Your task to perform on an android device: turn off priority inbox in the gmail app Image 0: 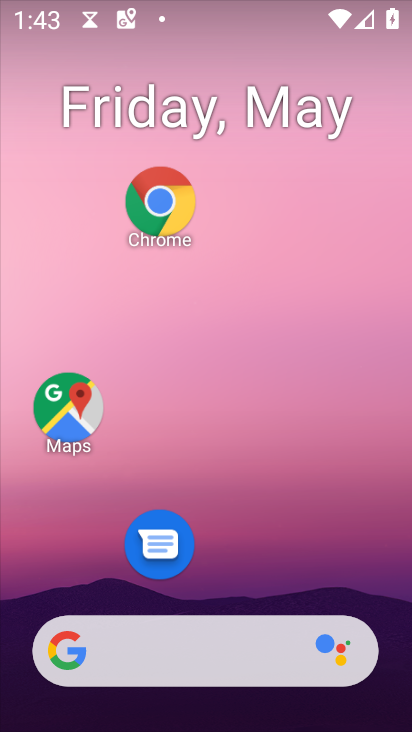
Step 0: drag from (311, 577) to (241, 172)
Your task to perform on an android device: turn off priority inbox in the gmail app Image 1: 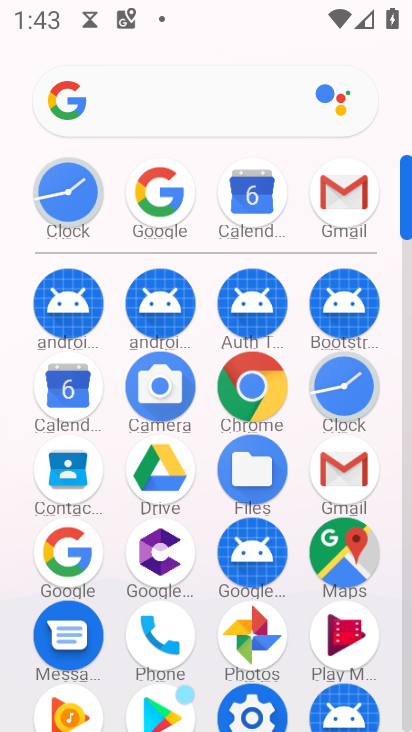
Step 1: click (336, 474)
Your task to perform on an android device: turn off priority inbox in the gmail app Image 2: 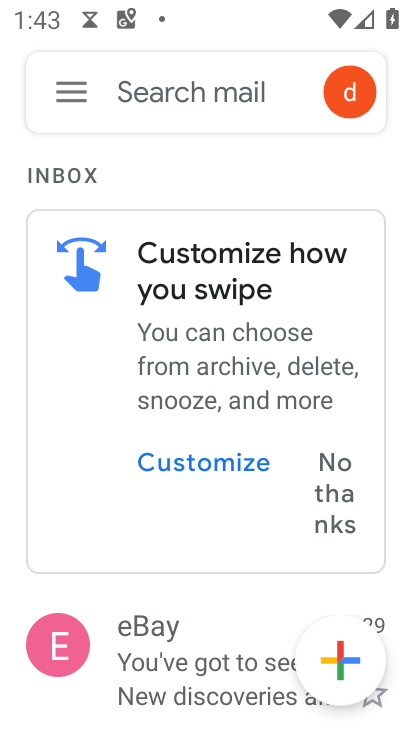
Step 2: click (86, 100)
Your task to perform on an android device: turn off priority inbox in the gmail app Image 3: 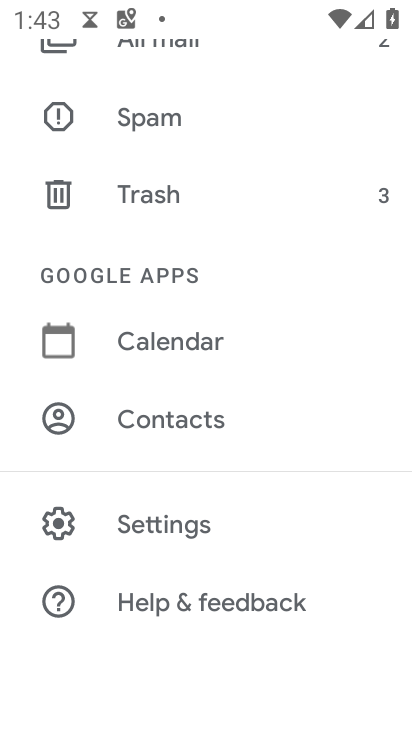
Step 3: click (193, 520)
Your task to perform on an android device: turn off priority inbox in the gmail app Image 4: 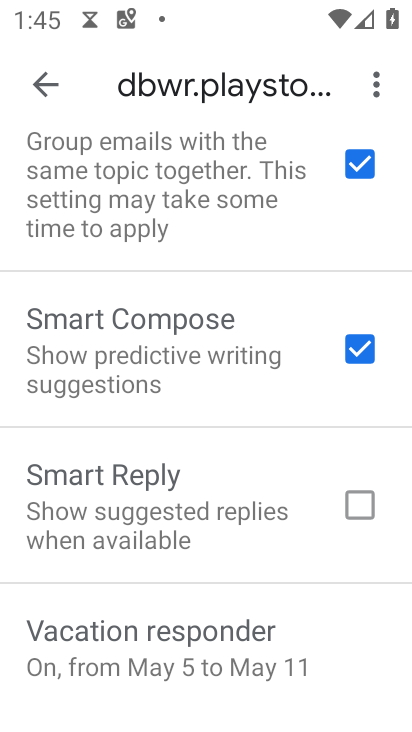
Step 4: drag from (158, 527) to (173, 269)
Your task to perform on an android device: turn off priority inbox in the gmail app Image 5: 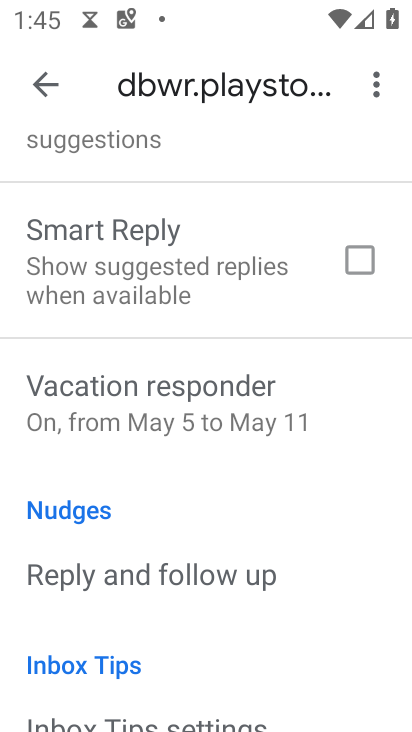
Step 5: drag from (147, 592) to (186, 287)
Your task to perform on an android device: turn off priority inbox in the gmail app Image 6: 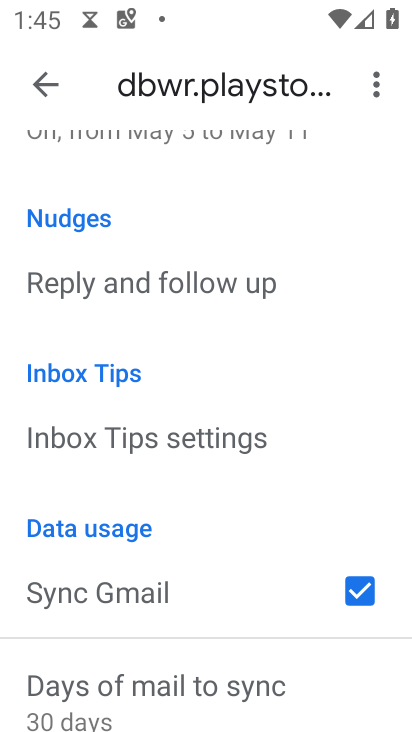
Step 6: drag from (148, 537) to (179, 277)
Your task to perform on an android device: turn off priority inbox in the gmail app Image 7: 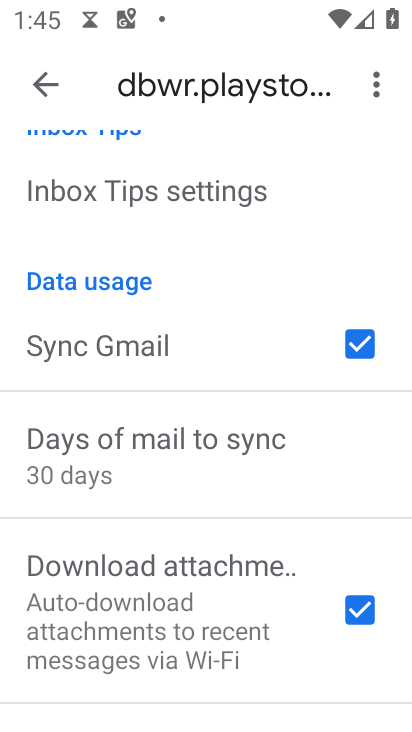
Step 7: drag from (187, 230) to (189, 730)
Your task to perform on an android device: turn off priority inbox in the gmail app Image 8: 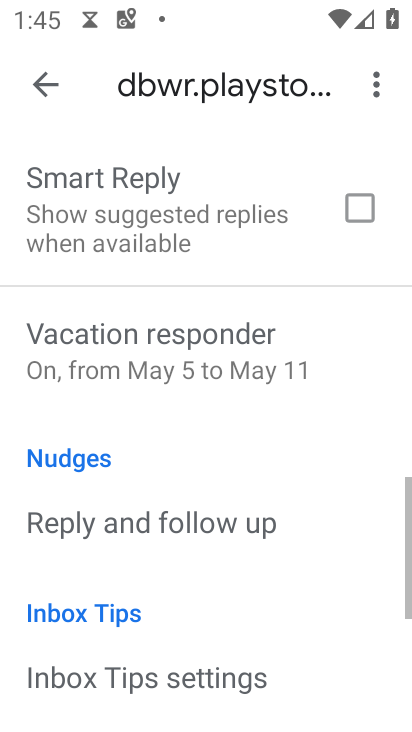
Step 8: drag from (162, 257) to (102, 728)
Your task to perform on an android device: turn off priority inbox in the gmail app Image 9: 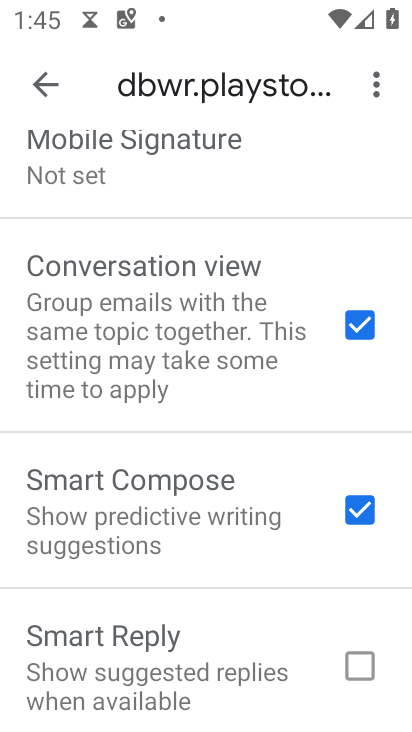
Step 9: drag from (107, 319) to (78, 729)
Your task to perform on an android device: turn off priority inbox in the gmail app Image 10: 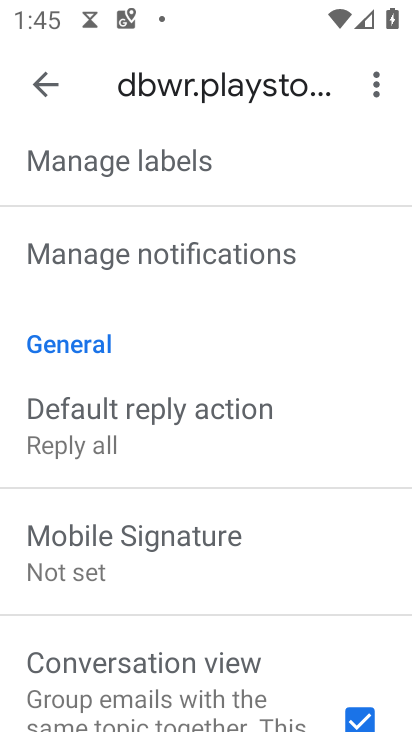
Step 10: drag from (165, 244) to (104, 708)
Your task to perform on an android device: turn off priority inbox in the gmail app Image 11: 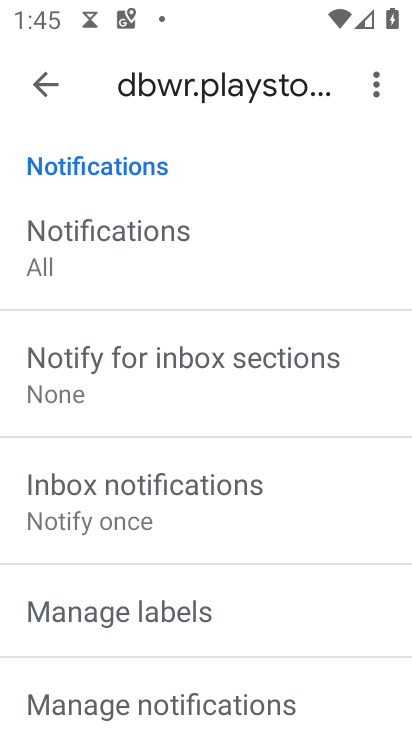
Step 11: drag from (148, 497) to (166, 313)
Your task to perform on an android device: turn off priority inbox in the gmail app Image 12: 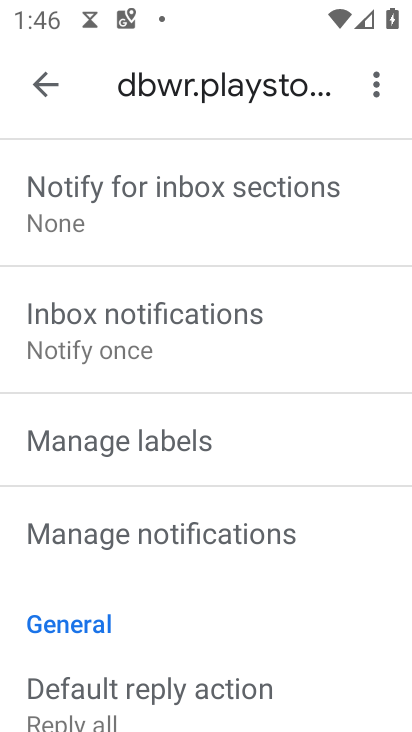
Step 12: drag from (177, 376) to (164, 537)
Your task to perform on an android device: turn off priority inbox in the gmail app Image 13: 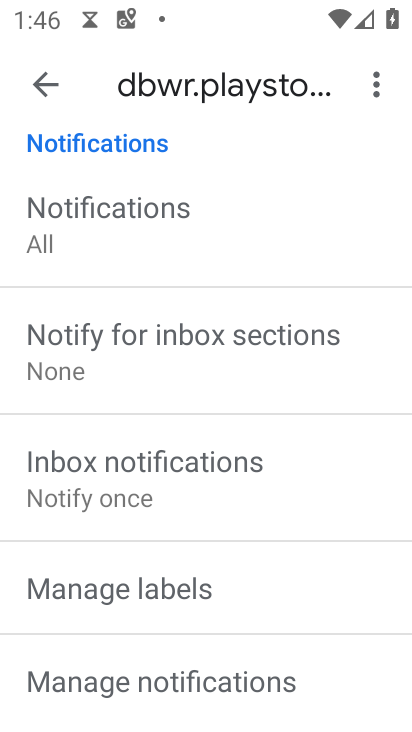
Step 13: drag from (179, 301) to (186, 716)
Your task to perform on an android device: turn off priority inbox in the gmail app Image 14: 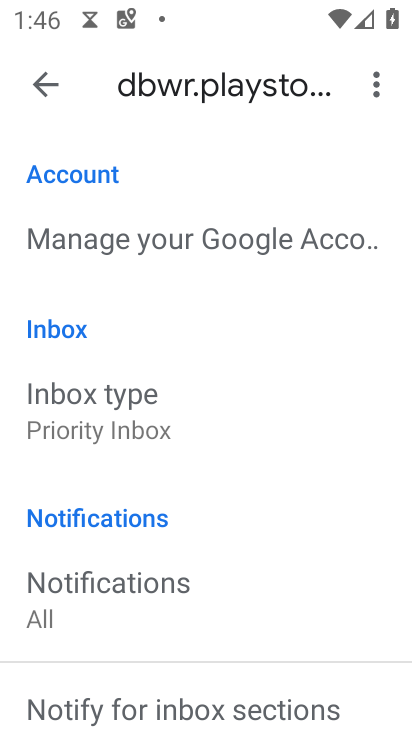
Step 14: click (154, 431)
Your task to perform on an android device: turn off priority inbox in the gmail app Image 15: 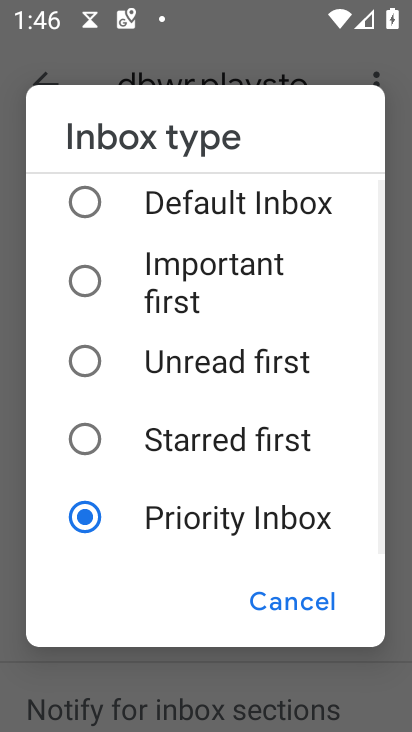
Step 15: click (180, 213)
Your task to perform on an android device: turn off priority inbox in the gmail app Image 16: 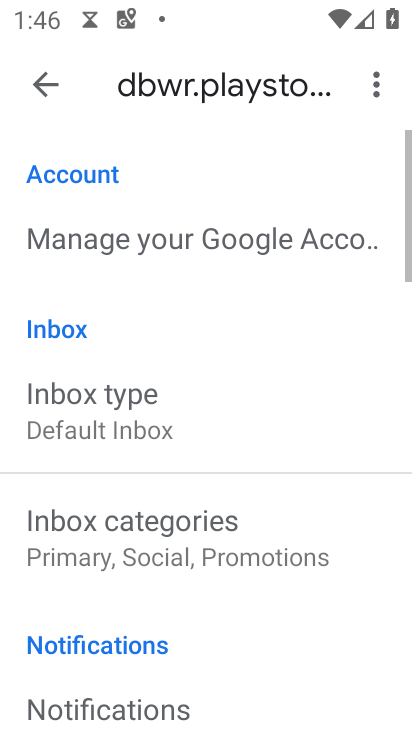
Step 16: task complete